Your task to perform on an android device: Turn off the flashlight Image 0: 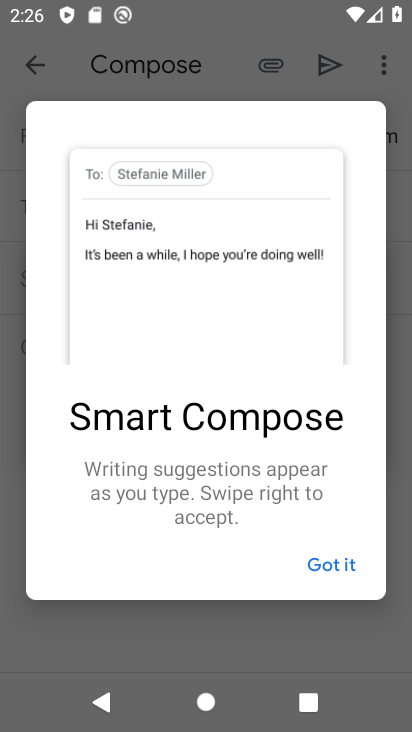
Step 0: press home button
Your task to perform on an android device: Turn off the flashlight Image 1: 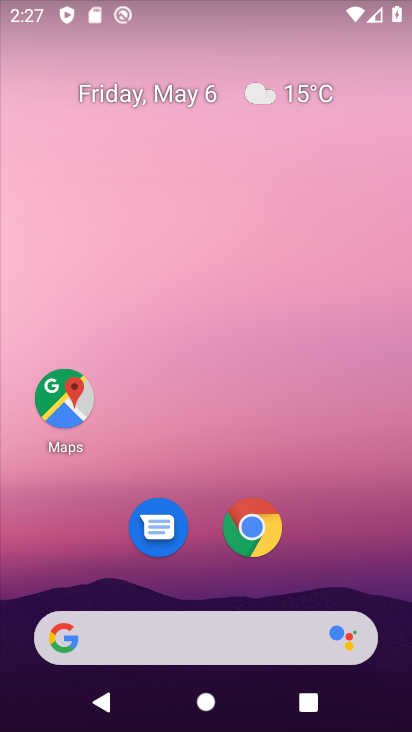
Step 1: drag from (182, 495) to (271, 198)
Your task to perform on an android device: Turn off the flashlight Image 2: 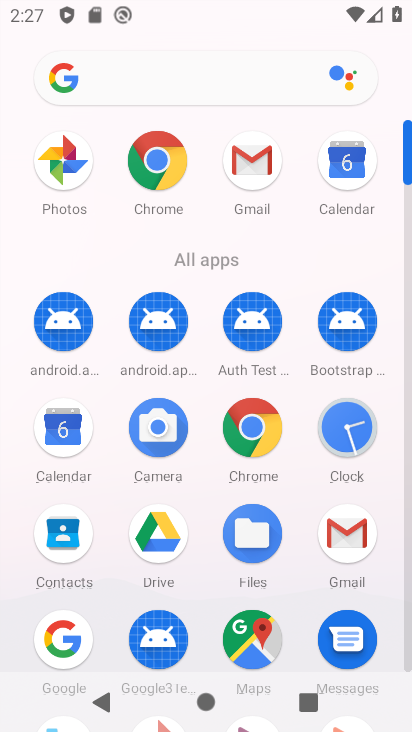
Step 2: drag from (203, 577) to (252, 333)
Your task to perform on an android device: Turn off the flashlight Image 3: 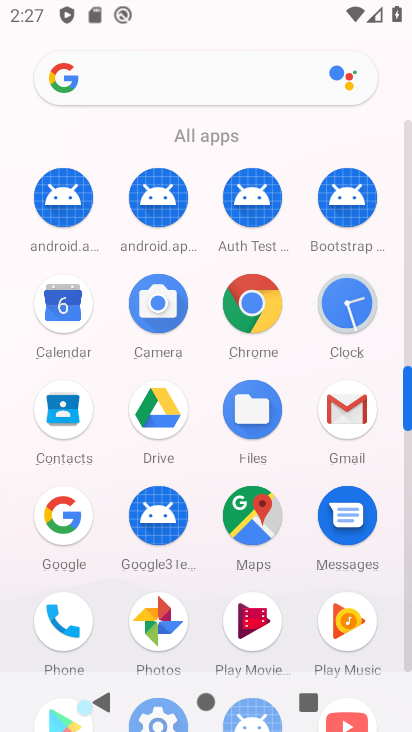
Step 3: click (163, 718)
Your task to perform on an android device: Turn off the flashlight Image 4: 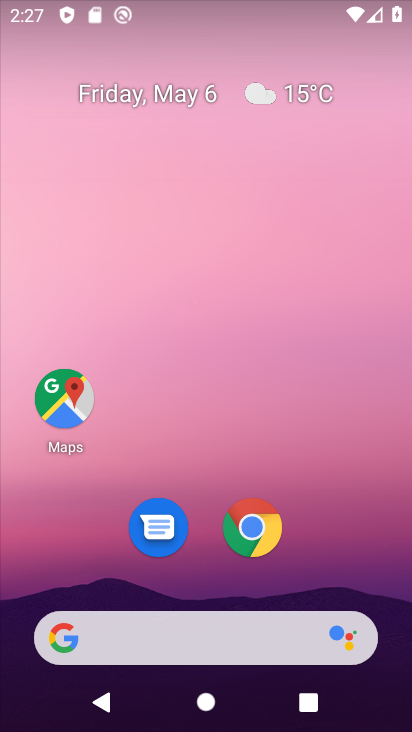
Step 4: drag from (246, 586) to (326, 283)
Your task to perform on an android device: Turn off the flashlight Image 5: 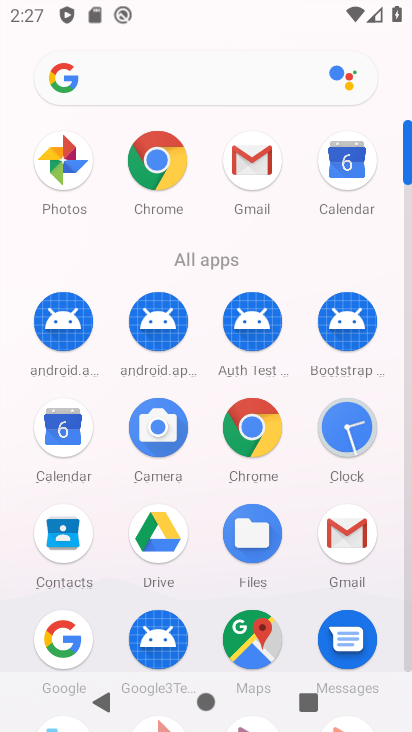
Step 5: drag from (207, 572) to (297, 220)
Your task to perform on an android device: Turn off the flashlight Image 6: 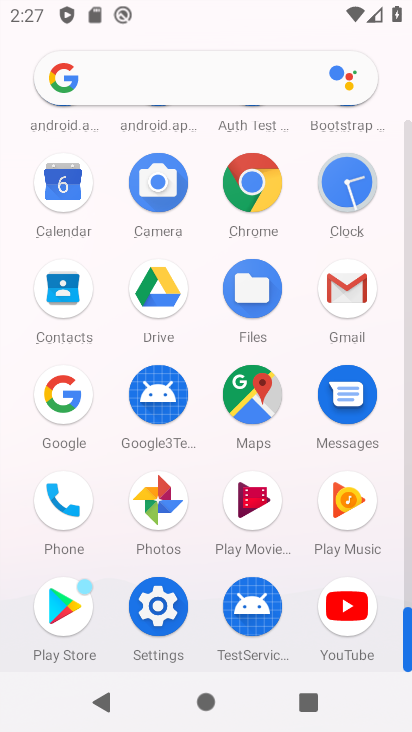
Step 6: click (158, 604)
Your task to perform on an android device: Turn off the flashlight Image 7: 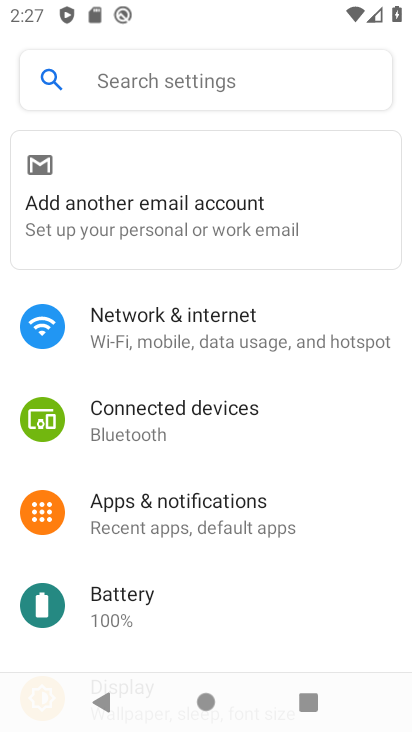
Step 7: drag from (180, 604) to (224, 298)
Your task to perform on an android device: Turn off the flashlight Image 8: 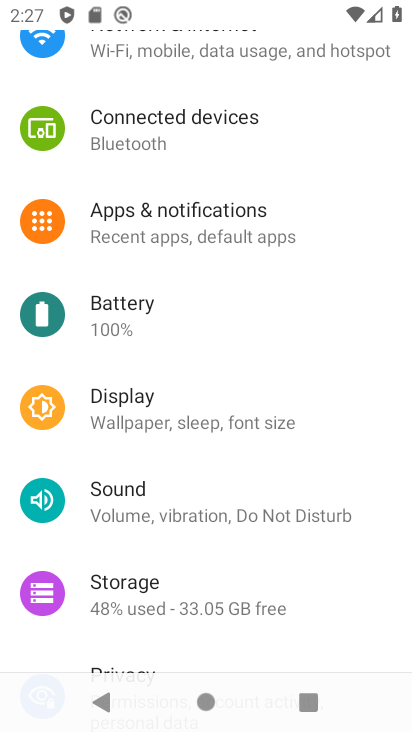
Step 8: click (190, 610)
Your task to perform on an android device: Turn off the flashlight Image 9: 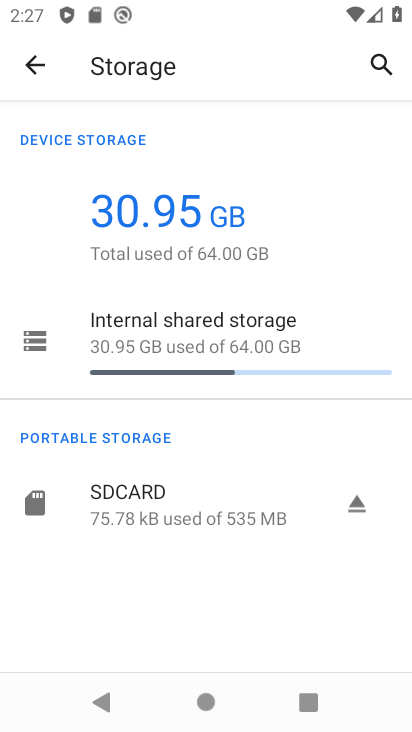
Step 9: task complete